Your task to perform on an android device: Toggle the flashlight Image 0: 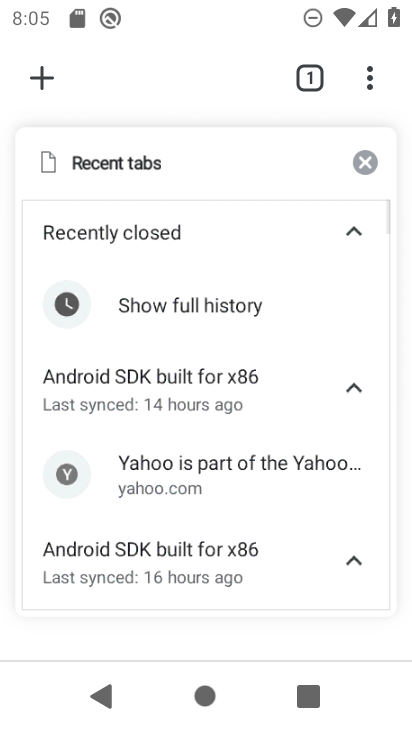
Step 0: press home button
Your task to perform on an android device: Toggle the flashlight Image 1: 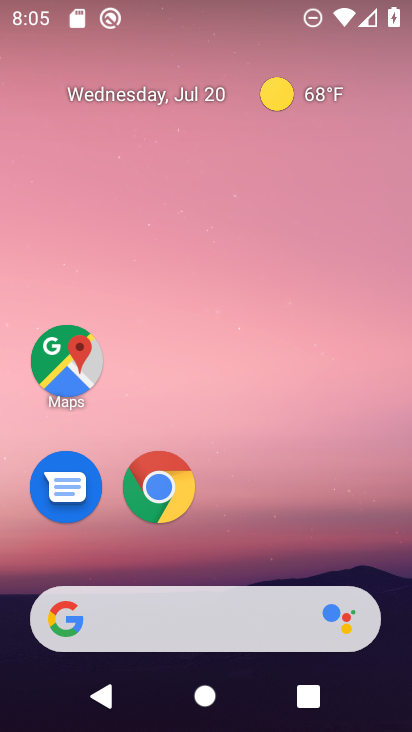
Step 1: drag from (216, 4) to (226, 331)
Your task to perform on an android device: Toggle the flashlight Image 2: 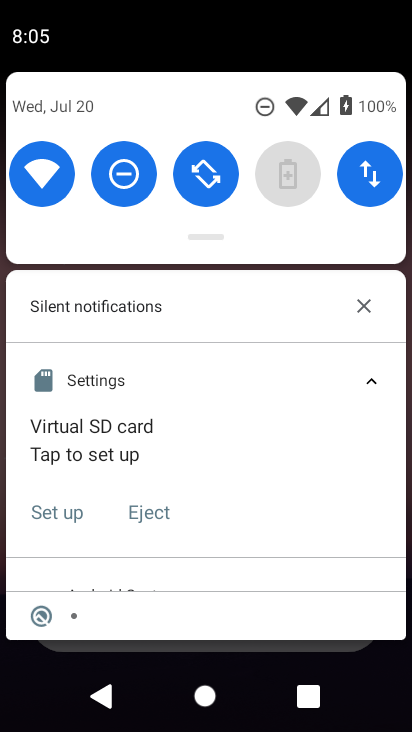
Step 2: drag from (243, 124) to (266, 366)
Your task to perform on an android device: Toggle the flashlight Image 3: 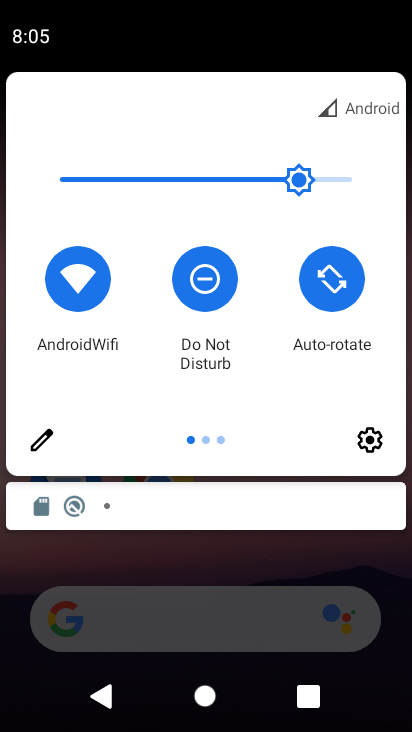
Step 3: click (54, 454)
Your task to perform on an android device: Toggle the flashlight Image 4: 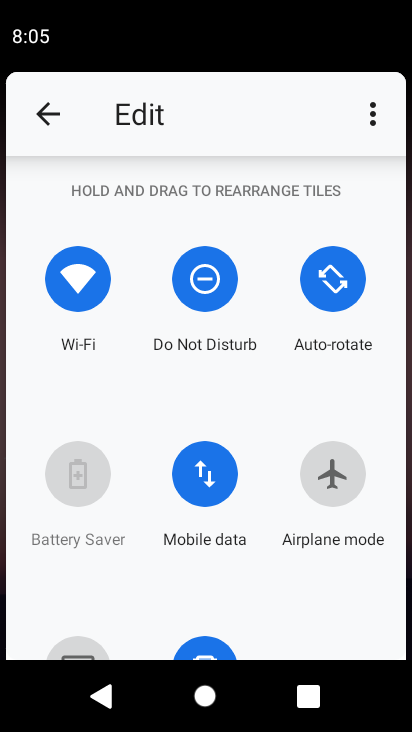
Step 4: task complete